Your task to perform on an android device: check data usage Image 0: 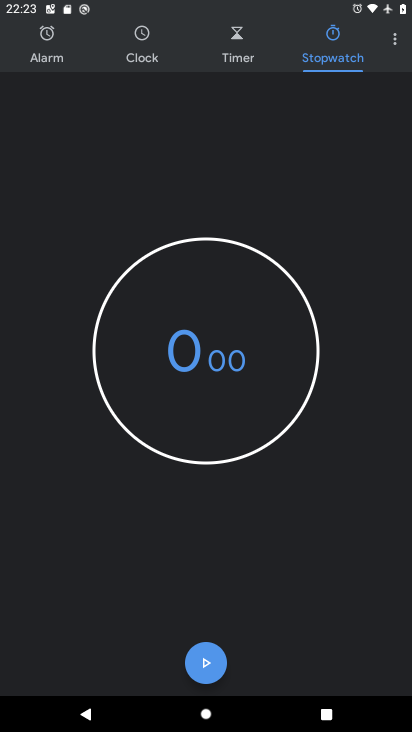
Step 0: press home button
Your task to perform on an android device: check data usage Image 1: 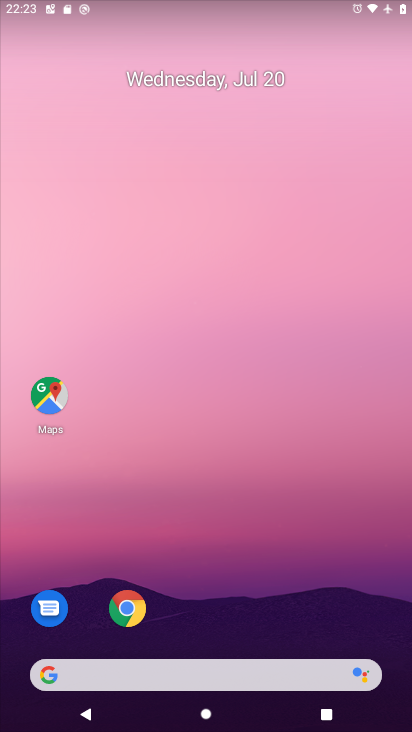
Step 1: drag from (242, 624) to (294, 0)
Your task to perform on an android device: check data usage Image 2: 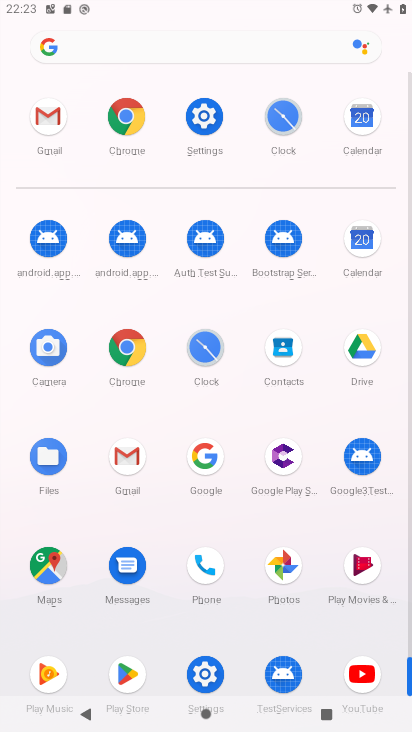
Step 2: click (208, 107)
Your task to perform on an android device: check data usage Image 3: 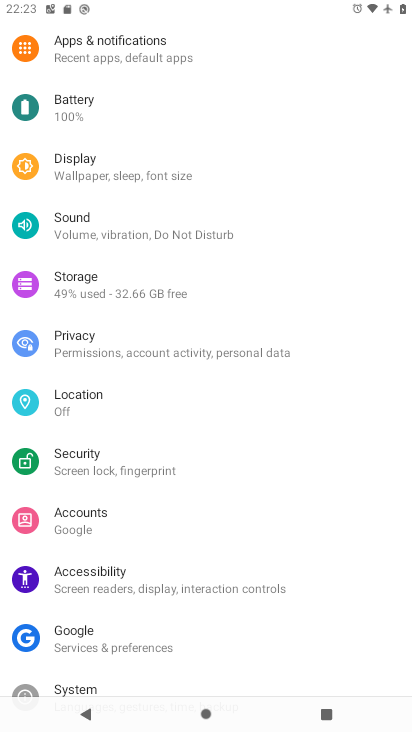
Step 3: drag from (109, 90) to (123, 599)
Your task to perform on an android device: check data usage Image 4: 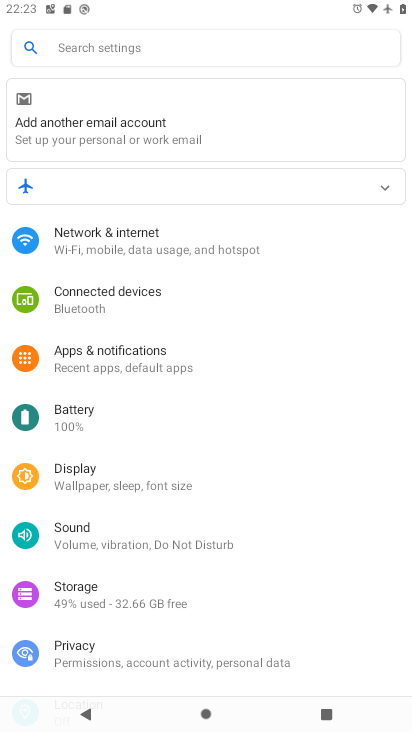
Step 4: click (111, 240)
Your task to perform on an android device: check data usage Image 5: 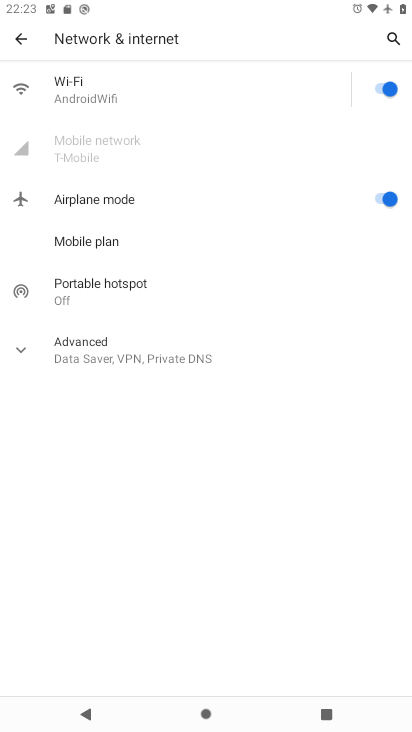
Step 5: click (160, 149)
Your task to perform on an android device: check data usage Image 6: 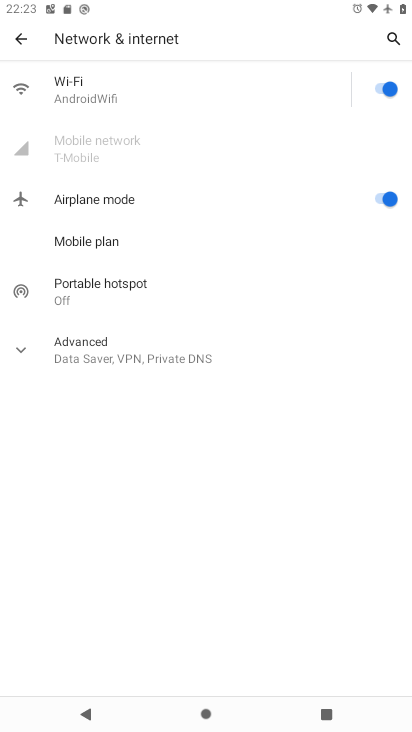
Step 6: task complete